Your task to perform on an android device: turn smart compose on in the gmail app Image 0: 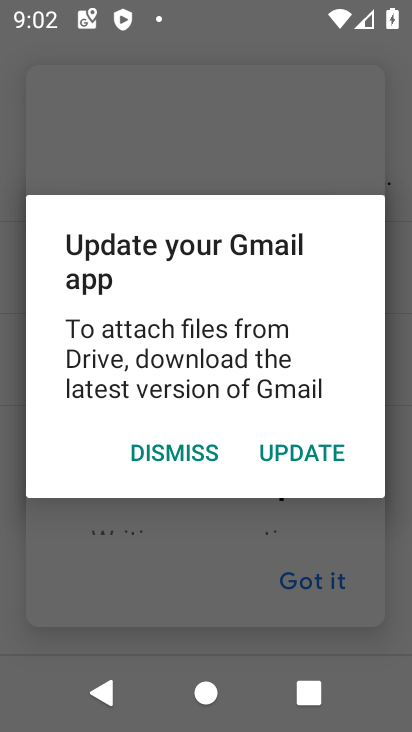
Step 0: press home button
Your task to perform on an android device: turn smart compose on in the gmail app Image 1: 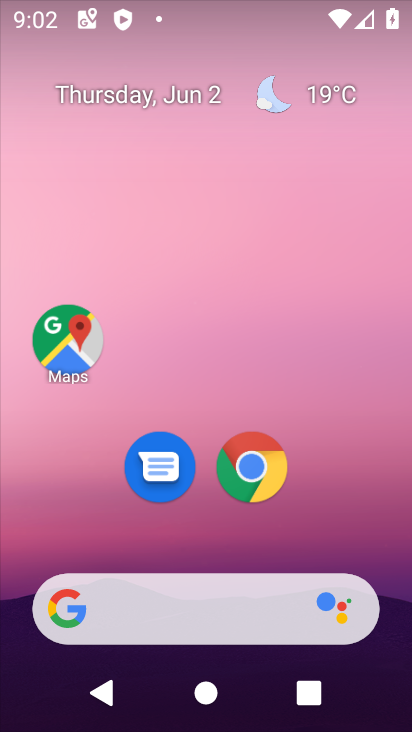
Step 1: drag from (216, 416) to (207, 159)
Your task to perform on an android device: turn smart compose on in the gmail app Image 2: 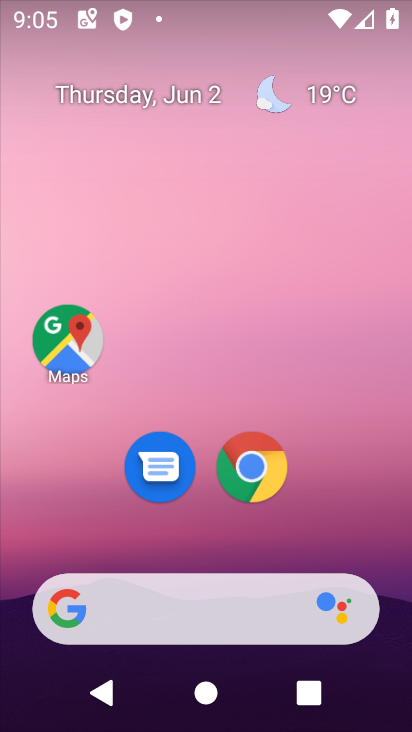
Step 2: click (266, 347)
Your task to perform on an android device: turn smart compose on in the gmail app Image 3: 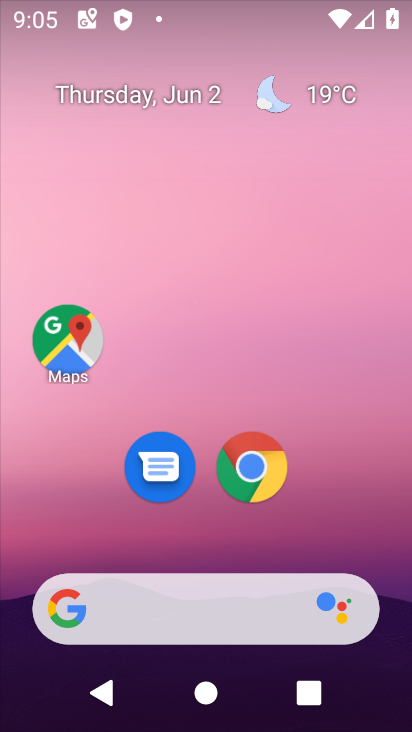
Step 3: drag from (221, 549) to (209, 141)
Your task to perform on an android device: turn smart compose on in the gmail app Image 4: 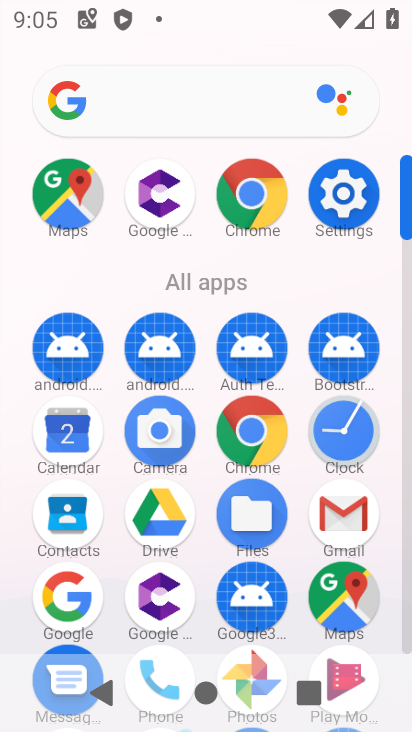
Step 4: click (345, 500)
Your task to perform on an android device: turn smart compose on in the gmail app Image 5: 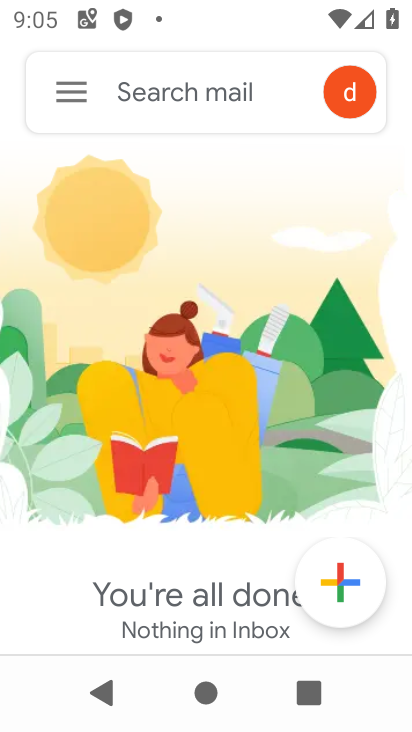
Step 5: click (68, 101)
Your task to perform on an android device: turn smart compose on in the gmail app Image 6: 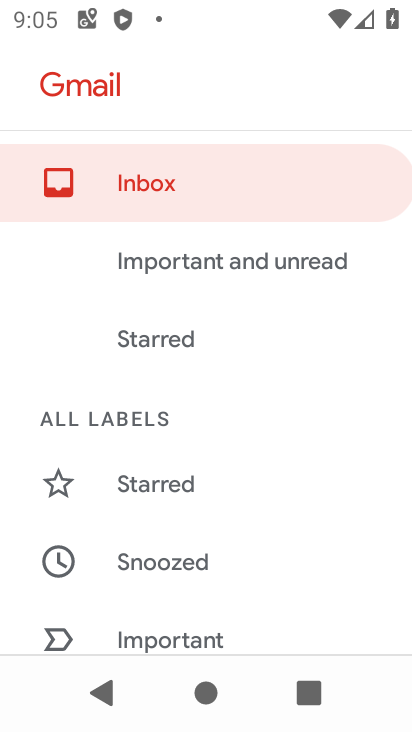
Step 6: drag from (204, 603) to (192, 304)
Your task to perform on an android device: turn smart compose on in the gmail app Image 7: 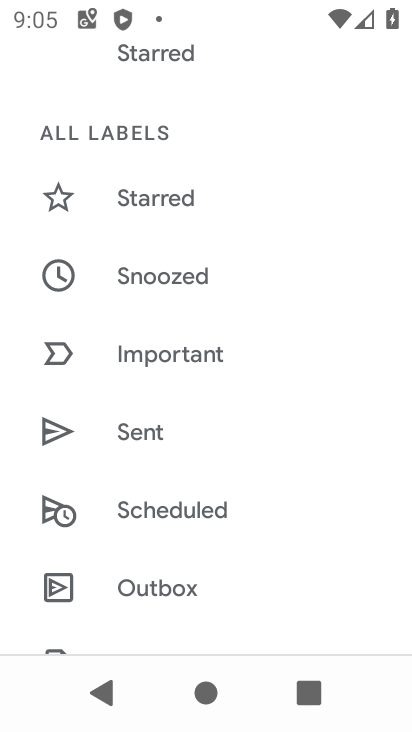
Step 7: drag from (182, 549) to (192, 232)
Your task to perform on an android device: turn smart compose on in the gmail app Image 8: 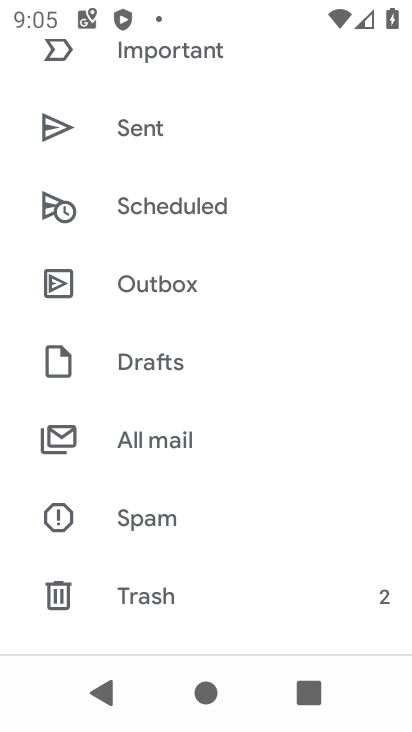
Step 8: drag from (174, 559) to (172, 326)
Your task to perform on an android device: turn smart compose on in the gmail app Image 9: 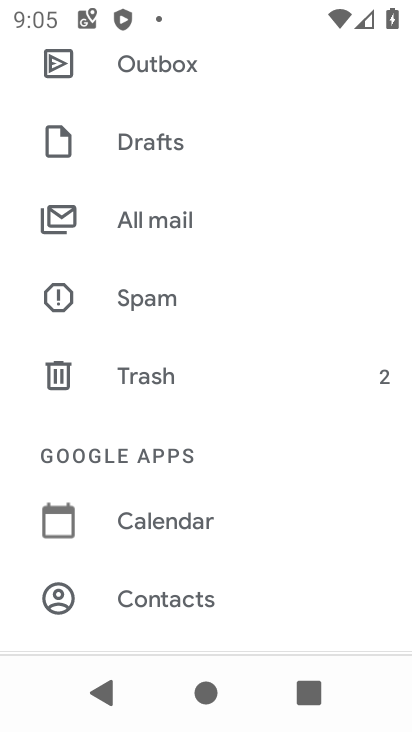
Step 9: drag from (176, 542) to (173, 275)
Your task to perform on an android device: turn smart compose on in the gmail app Image 10: 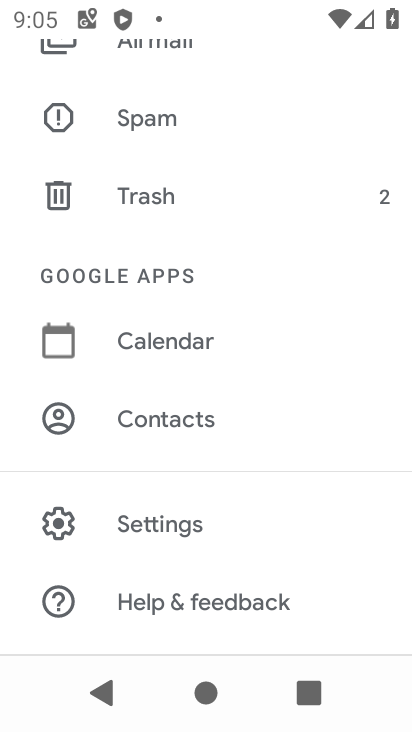
Step 10: click (166, 531)
Your task to perform on an android device: turn smart compose on in the gmail app Image 11: 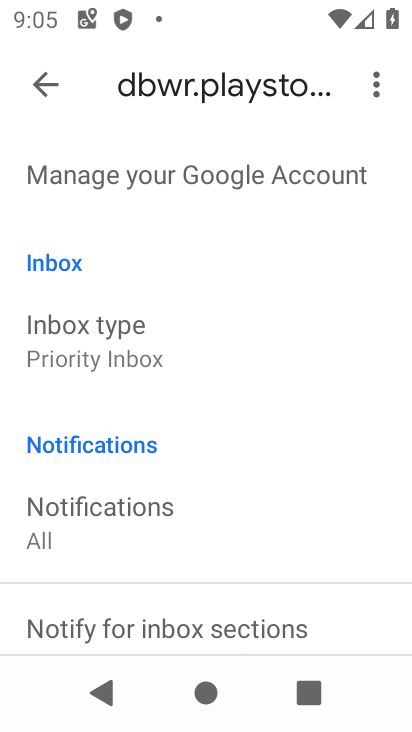
Step 11: task complete